Your task to perform on an android device: Open Wikipedia Image 0: 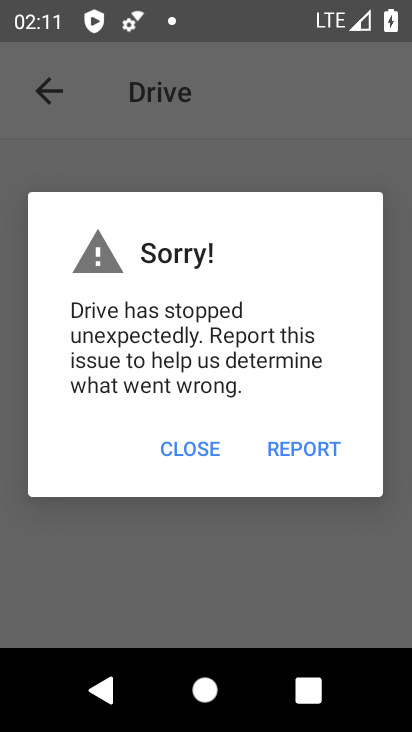
Step 0: press home button
Your task to perform on an android device: Open Wikipedia Image 1: 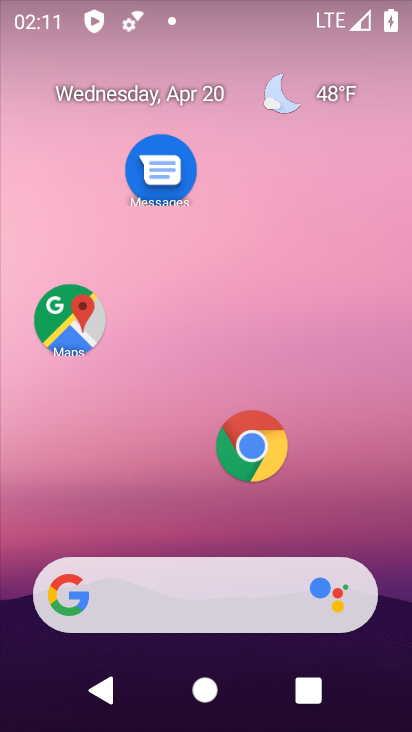
Step 1: click (249, 441)
Your task to perform on an android device: Open Wikipedia Image 2: 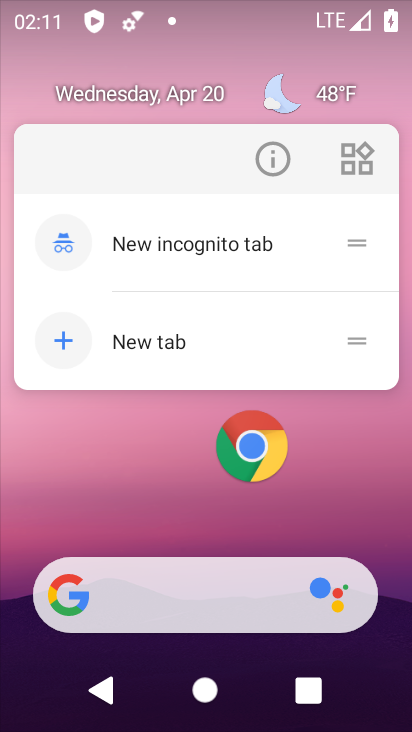
Step 2: click (249, 441)
Your task to perform on an android device: Open Wikipedia Image 3: 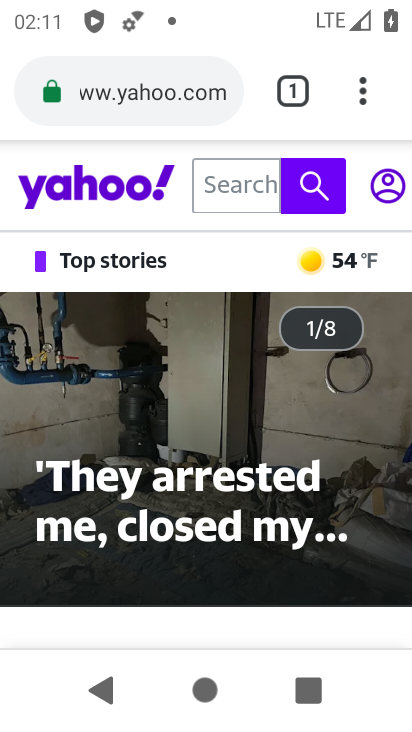
Step 3: click (355, 95)
Your task to perform on an android device: Open Wikipedia Image 4: 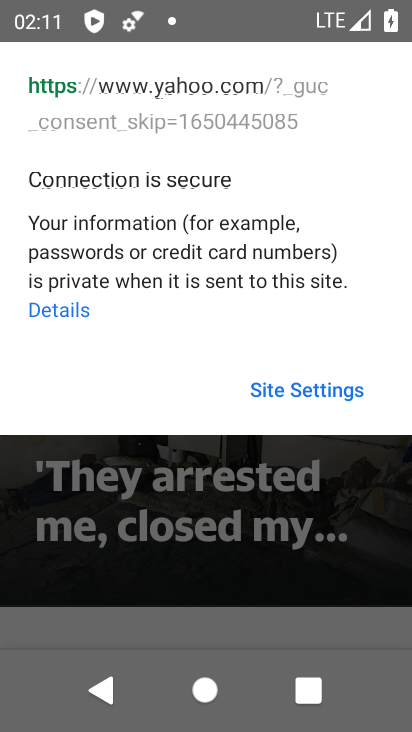
Step 4: click (239, 533)
Your task to perform on an android device: Open Wikipedia Image 5: 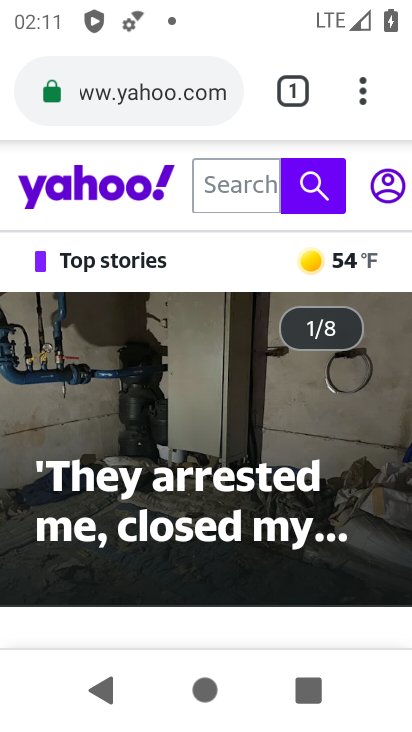
Step 5: click (296, 87)
Your task to perform on an android device: Open Wikipedia Image 6: 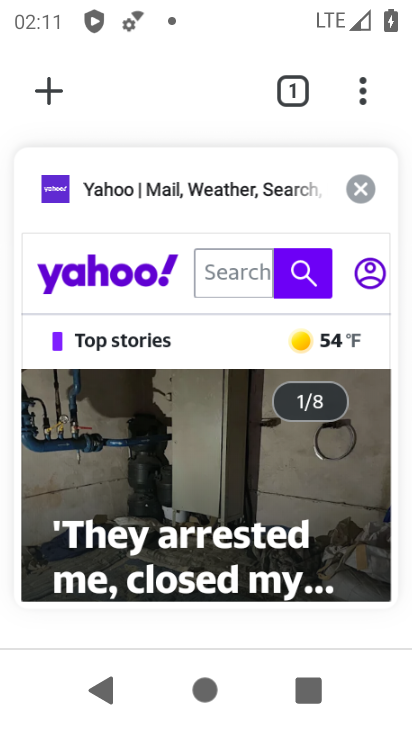
Step 6: click (46, 85)
Your task to perform on an android device: Open Wikipedia Image 7: 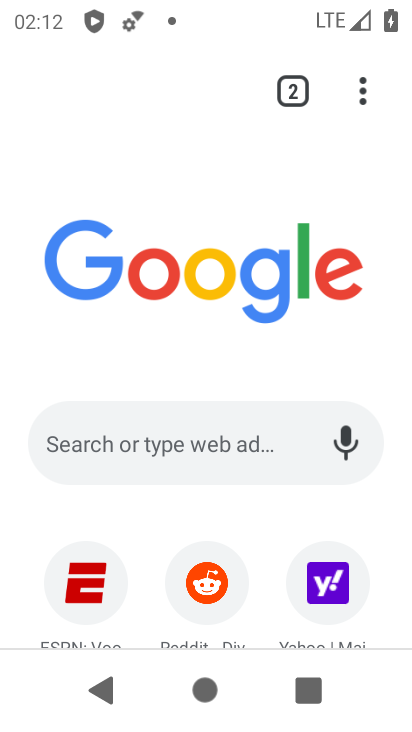
Step 7: drag from (272, 511) to (264, 55)
Your task to perform on an android device: Open Wikipedia Image 8: 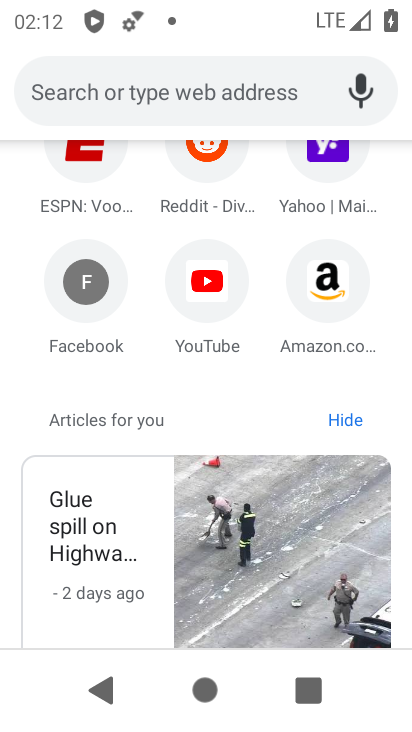
Step 8: click (182, 87)
Your task to perform on an android device: Open Wikipedia Image 9: 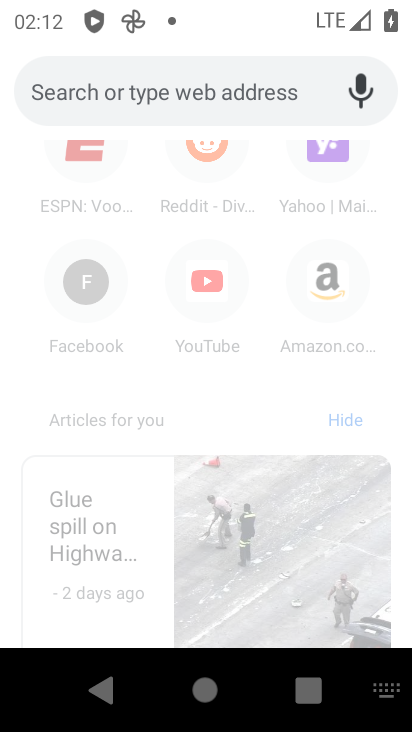
Step 9: type "wikipedia"
Your task to perform on an android device: Open Wikipedia Image 10: 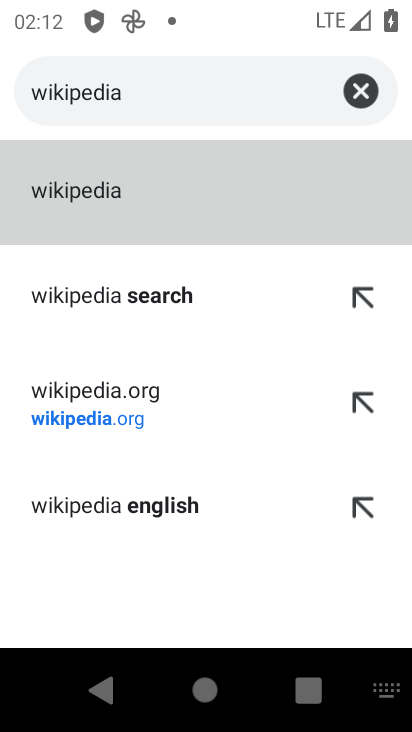
Step 10: click (157, 399)
Your task to perform on an android device: Open Wikipedia Image 11: 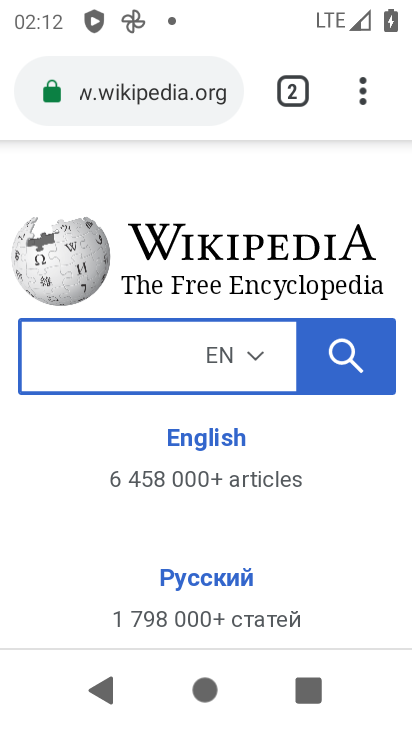
Step 11: drag from (178, 573) to (203, 174)
Your task to perform on an android device: Open Wikipedia Image 12: 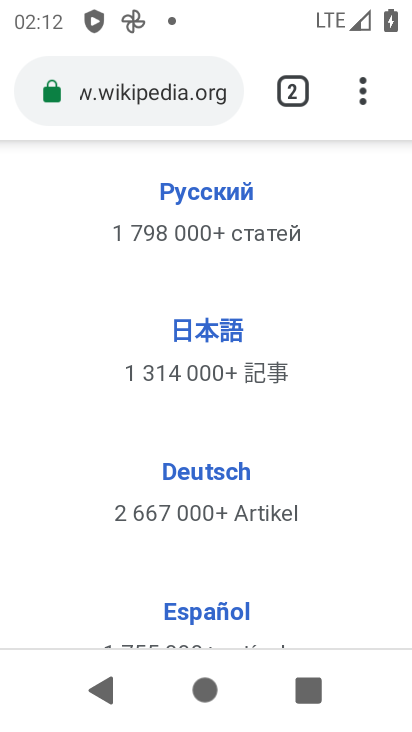
Step 12: drag from (65, 252) to (66, 717)
Your task to perform on an android device: Open Wikipedia Image 13: 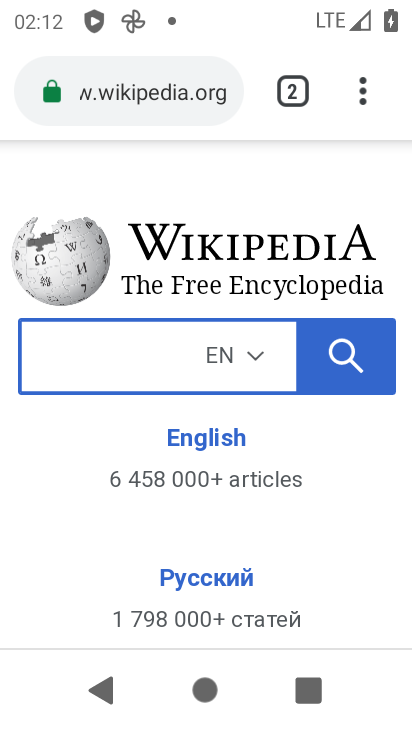
Step 13: click (211, 436)
Your task to perform on an android device: Open Wikipedia Image 14: 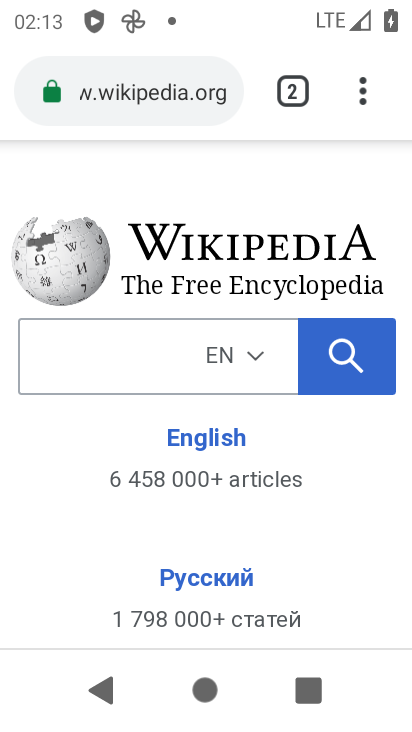
Step 14: click (213, 433)
Your task to perform on an android device: Open Wikipedia Image 15: 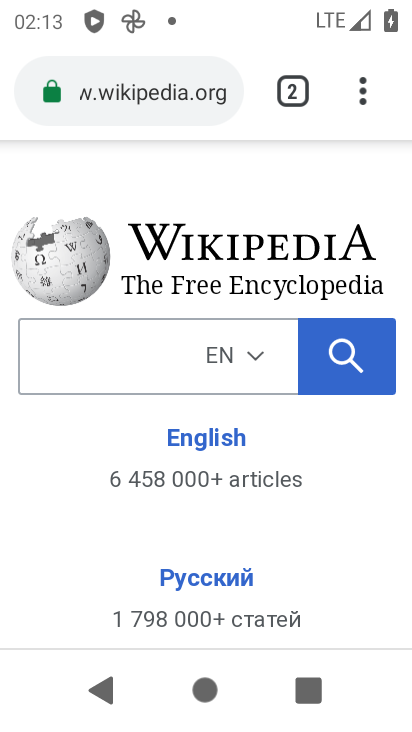
Step 15: click (205, 432)
Your task to perform on an android device: Open Wikipedia Image 16: 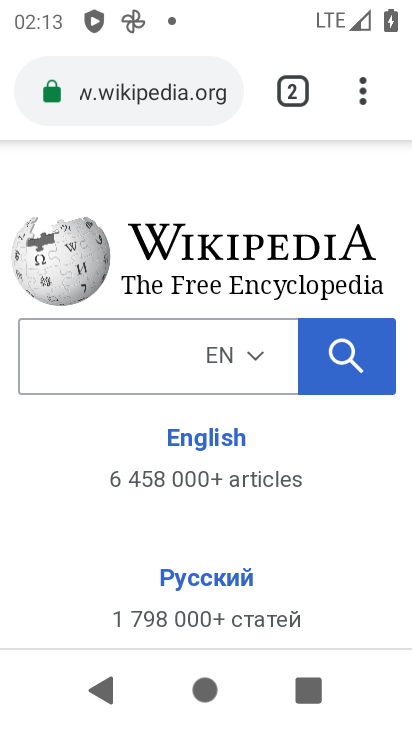
Step 16: task complete